Your task to perform on an android device: Open display settings Image 0: 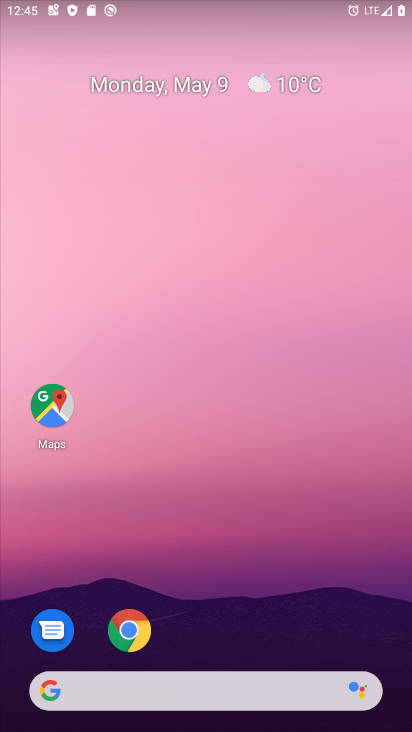
Step 0: drag from (341, 647) to (270, 7)
Your task to perform on an android device: Open display settings Image 1: 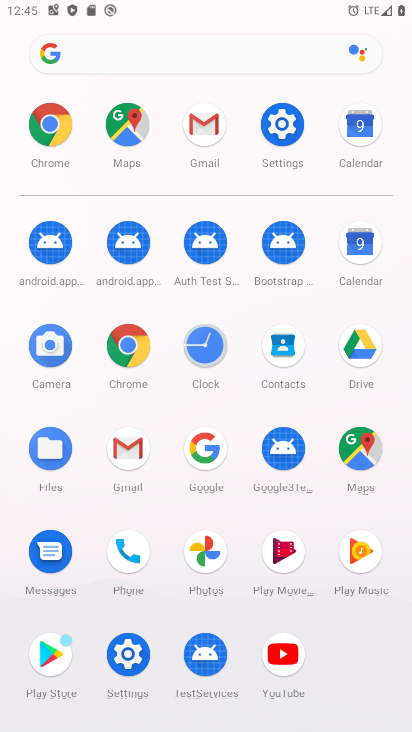
Step 1: click (132, 670)
Your task to perform on an android device: Open display settings Image 2: 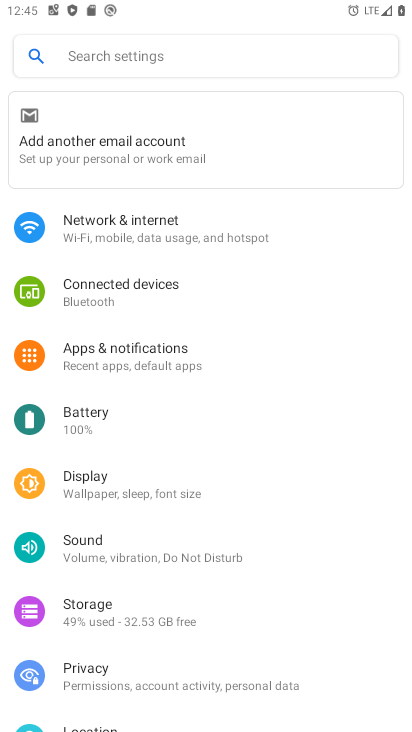
Step 2: click (107, 481)
Your task to perform on an android device: Open display settings Image 3: 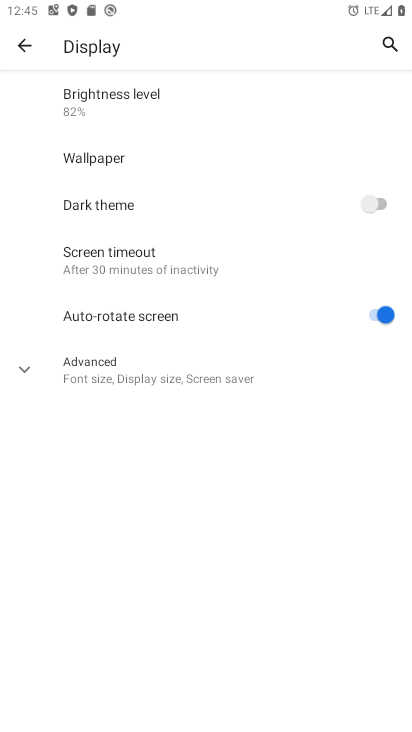
Step 3: task complete